Your task to perform on an android device: When is my next meeting? Image 0: 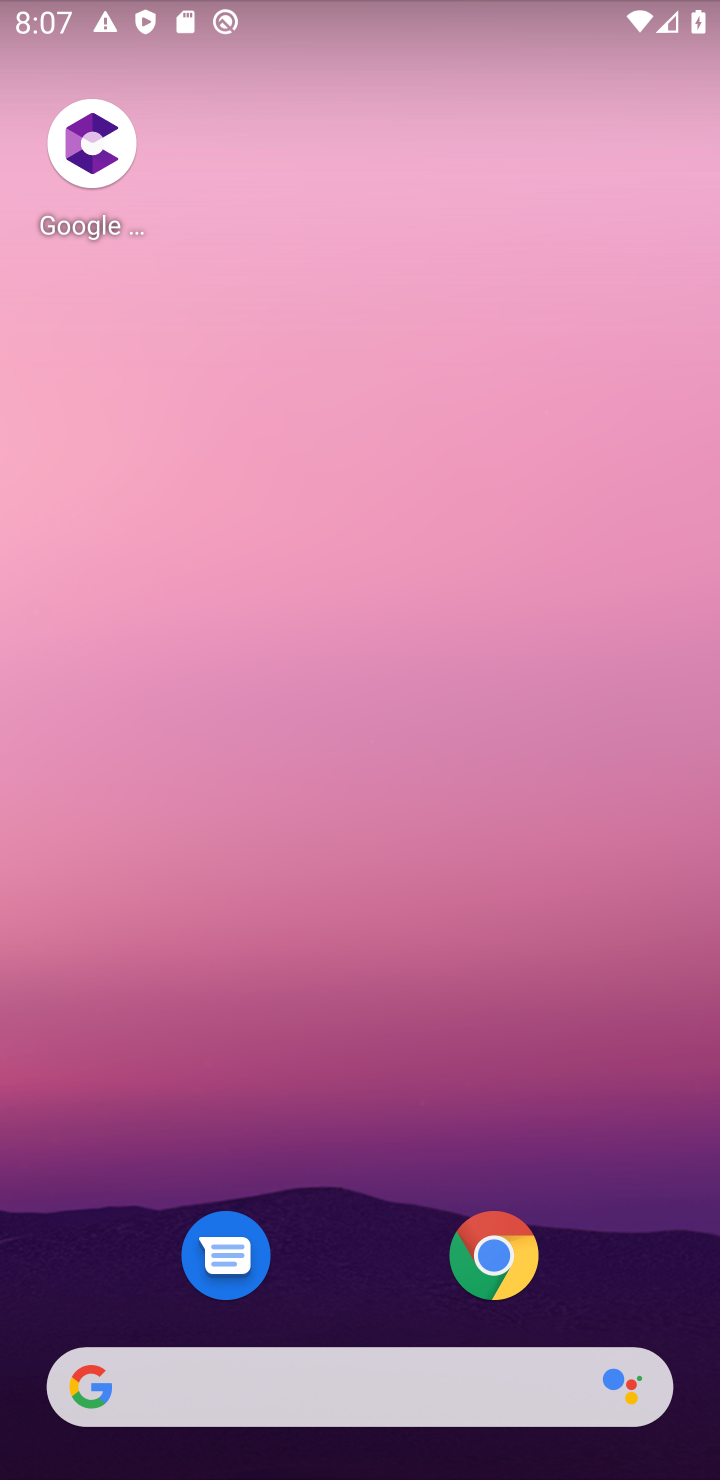
Step 0: drag from (372, 1286) to (367, 482)
Your task to perform on an android device: When is my next meeting? Image 1: 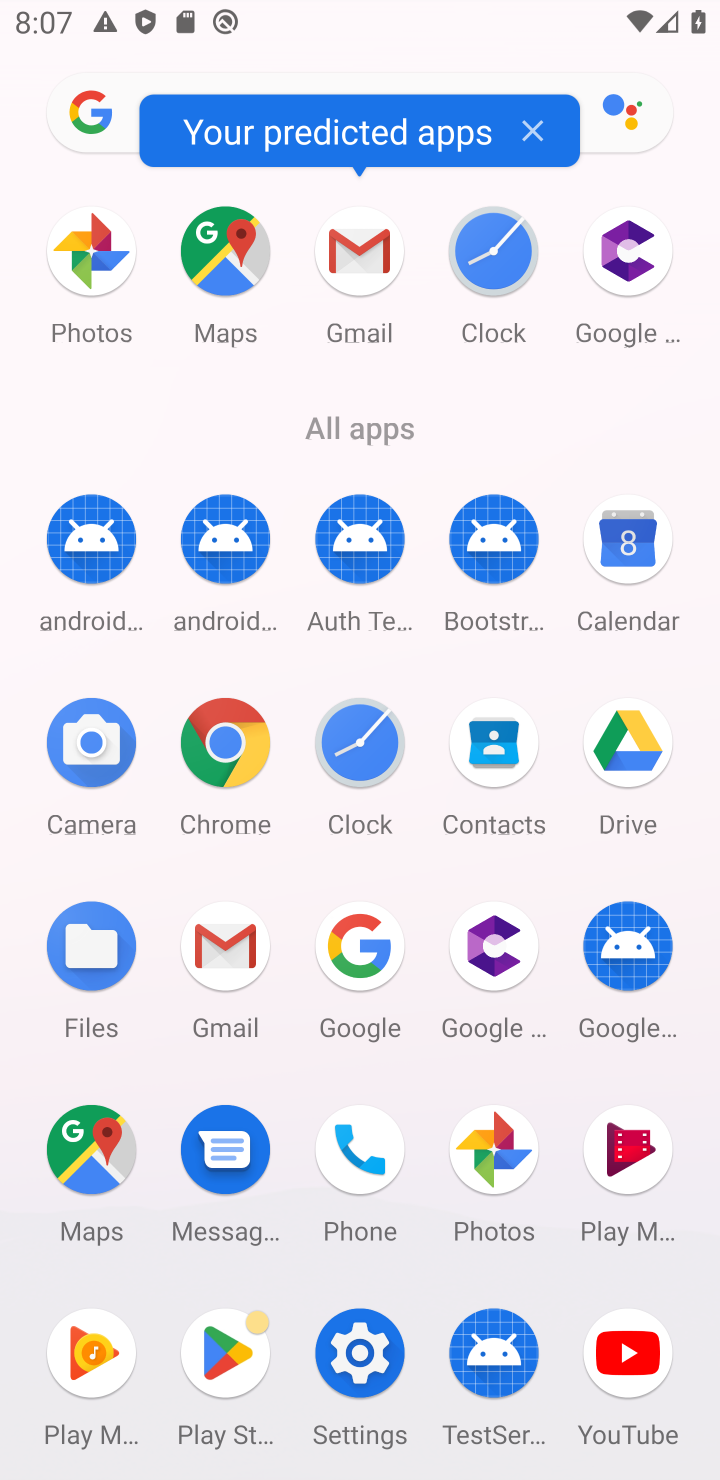
Step 1: click (645, 566)
Your task to perform on an android device: When is my next meeting? Image 2: 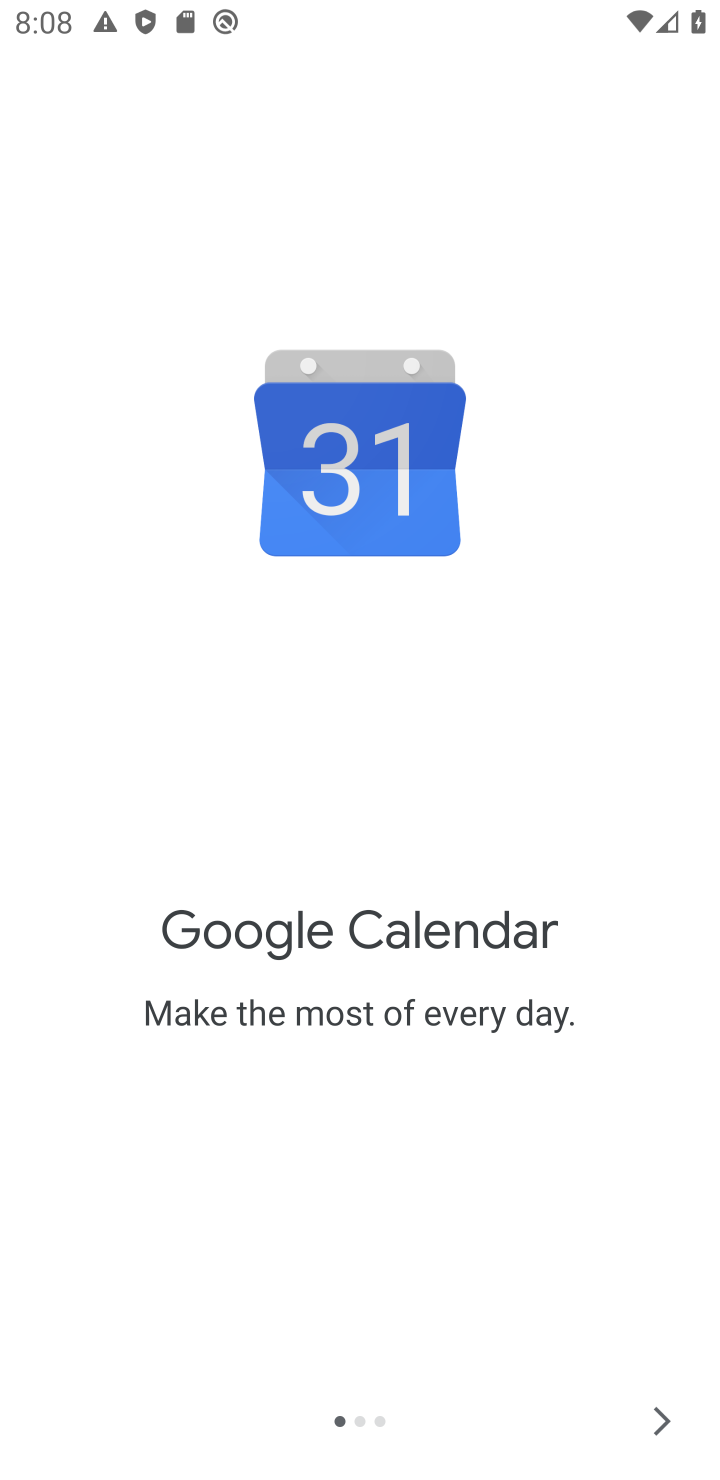
Step 2: click (650, 1428)
Your task to perform on an android device: When is my next meeting? Image 3: 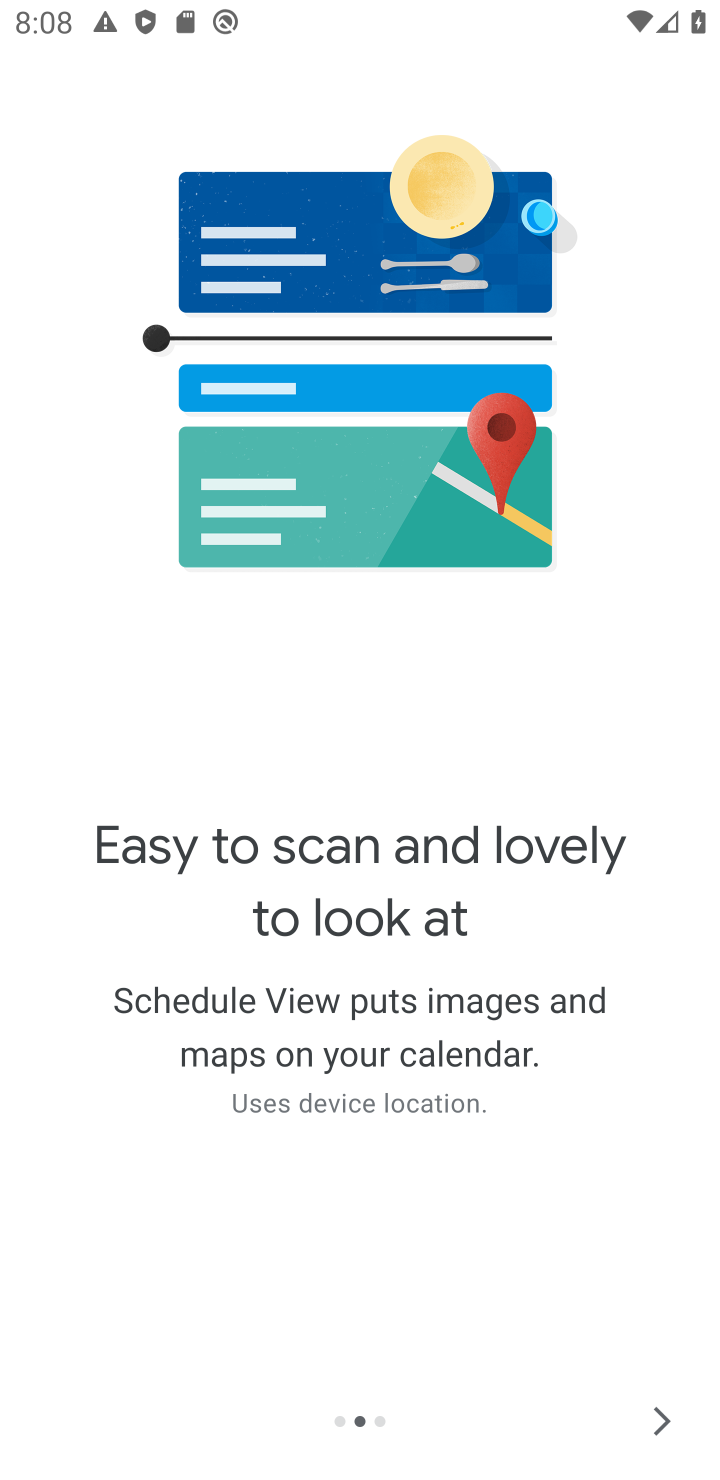
Step 3: click (650, 1428)
Your task to perform on an android device: When is my next meeting? Image 4: 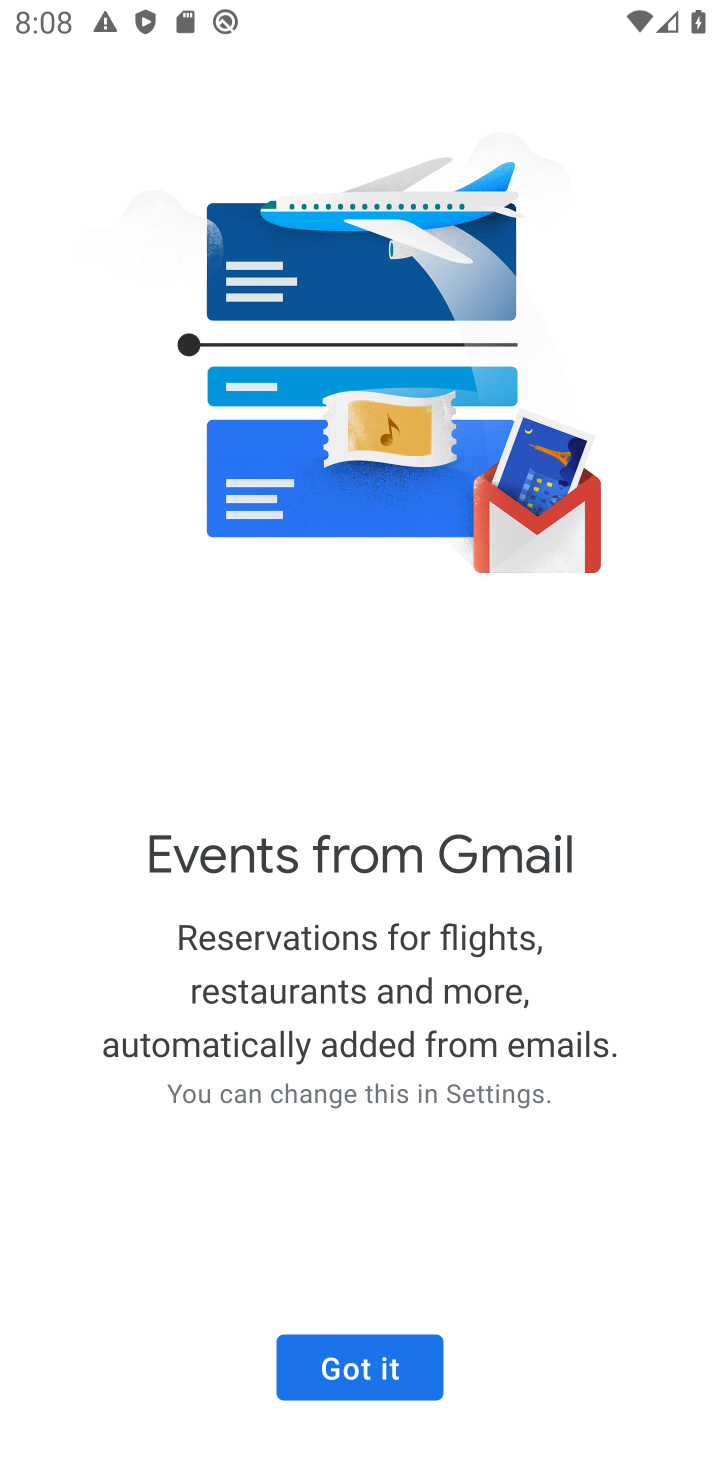
Step 4: click (352, 1330)
Your task to perform on an android device: When is my next meeting? Image 5: 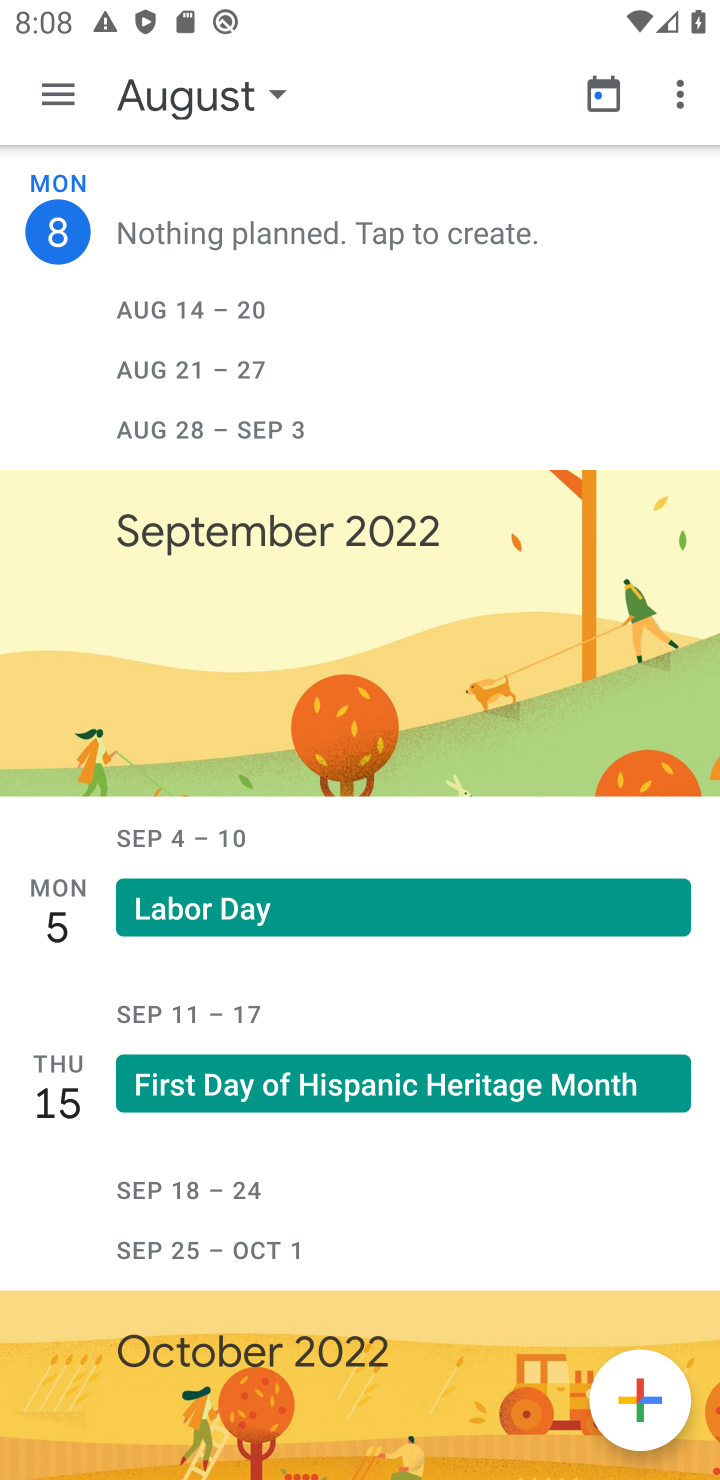
Step 5: click (186, 83)
Your task to perform on an android device: When is my next meeting? Image 6: 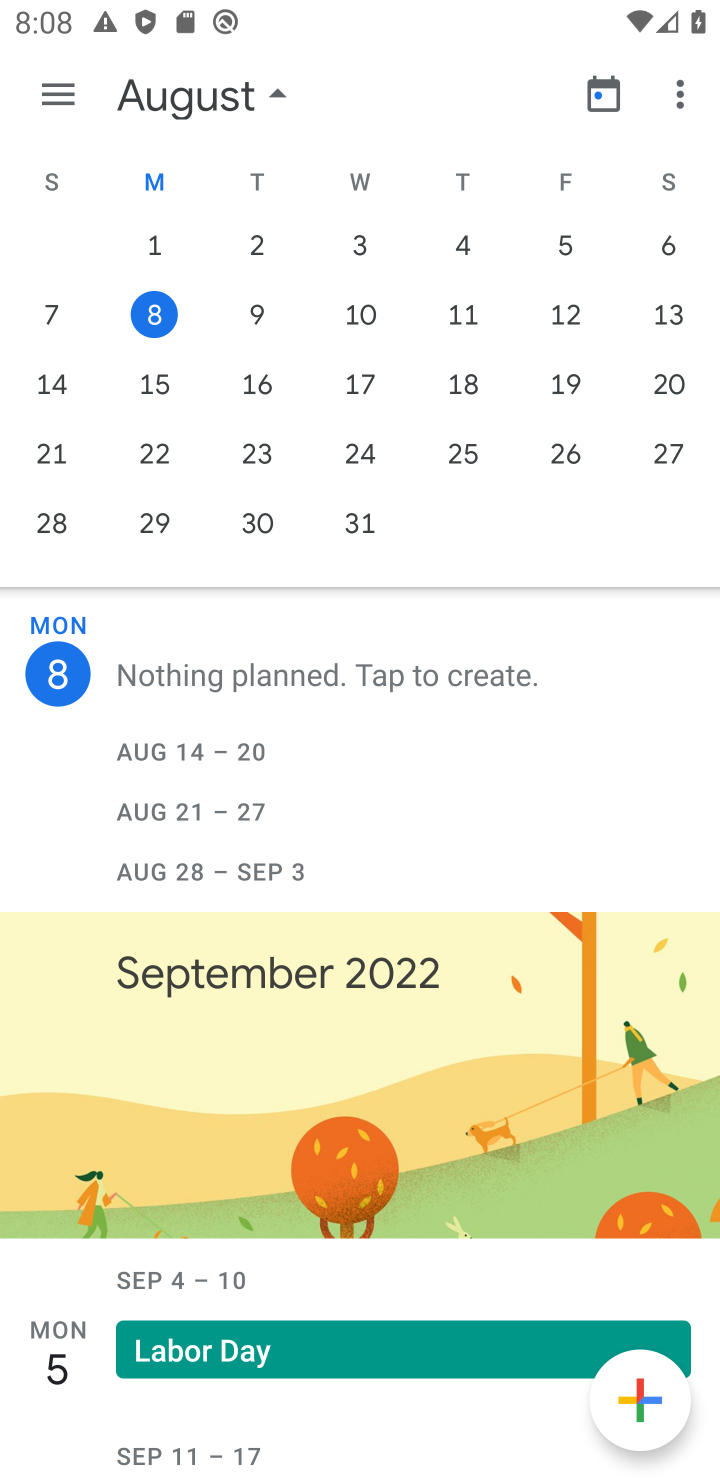
Step 6: click (166, 319)
Your task to perform on an android device: When is my next meeting? Image 7: 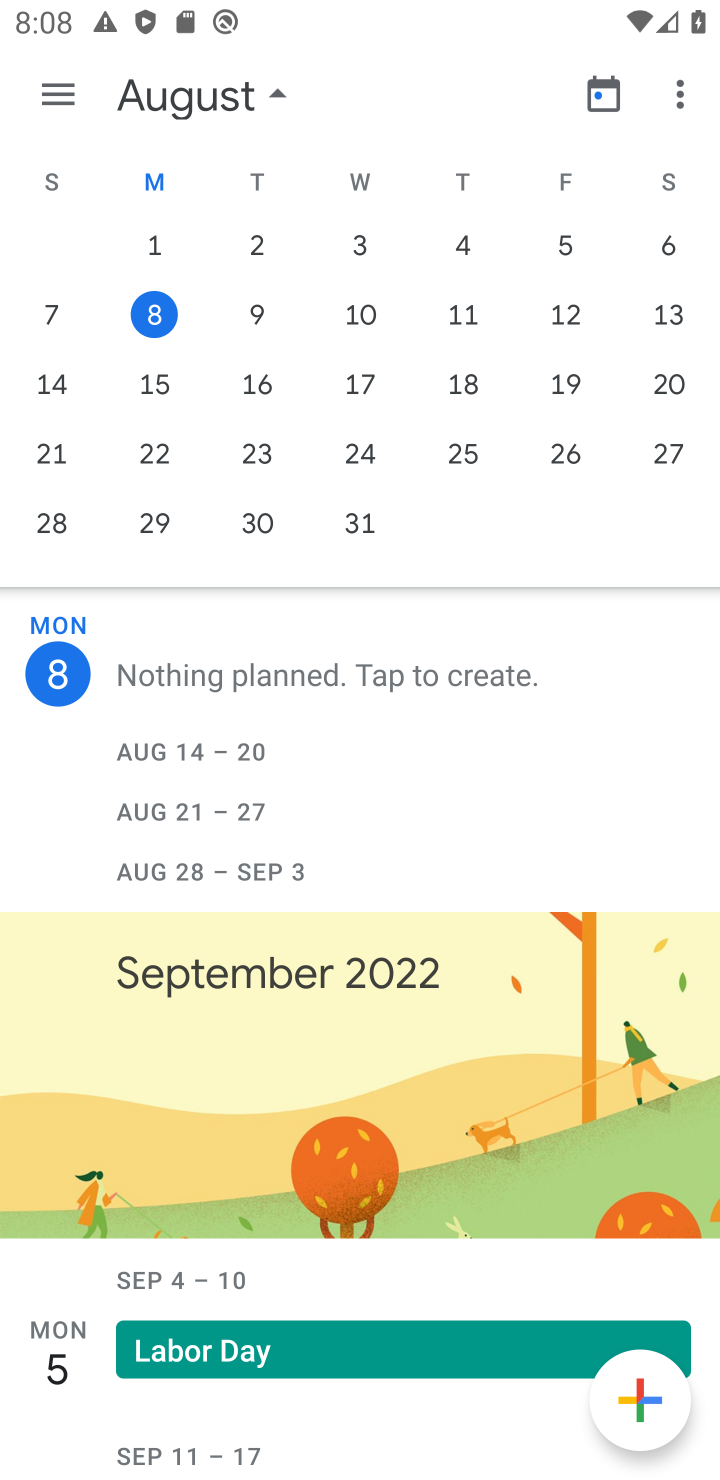
Step 7: click (166, 319)
Your task to perform on an android device: When is my next meeting? Image 8: 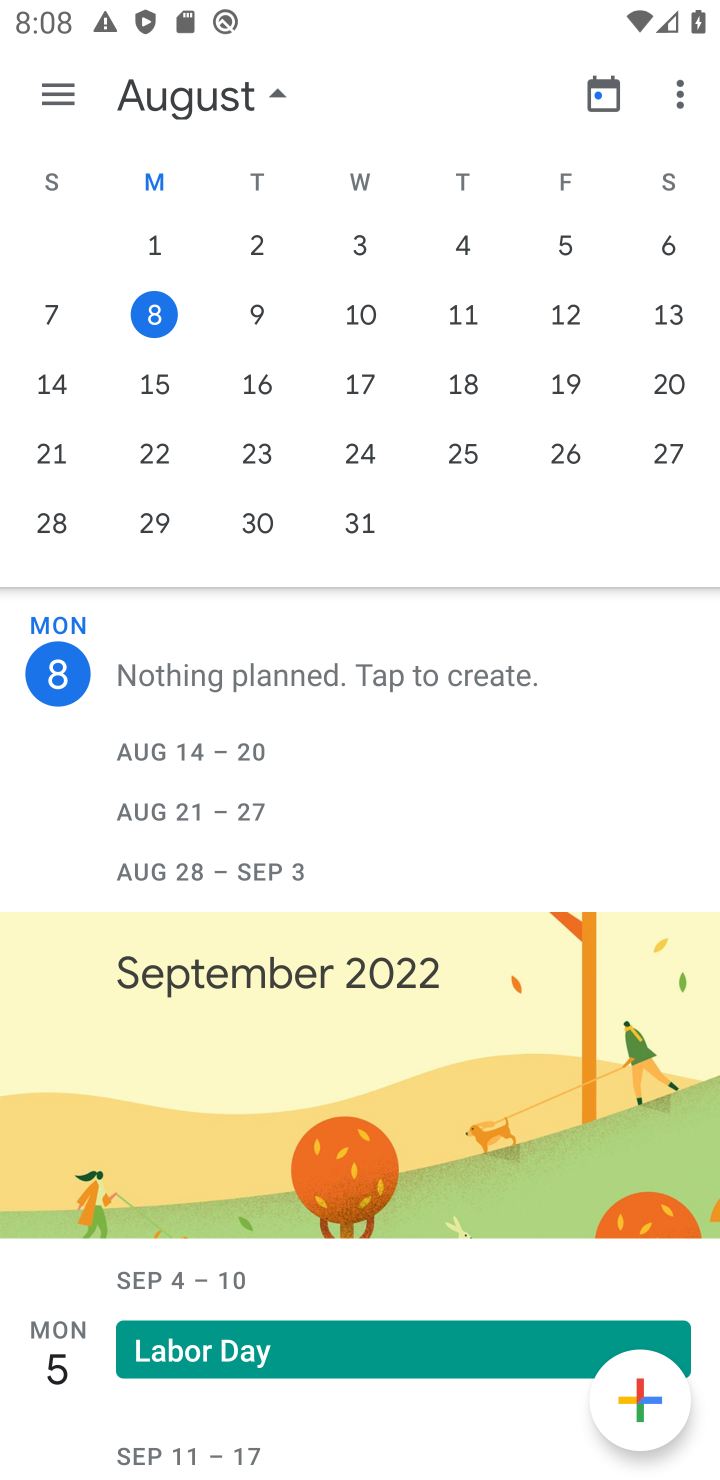
Step 8: task complete